Your task to perform on an android device: Go to eBay Image 0: 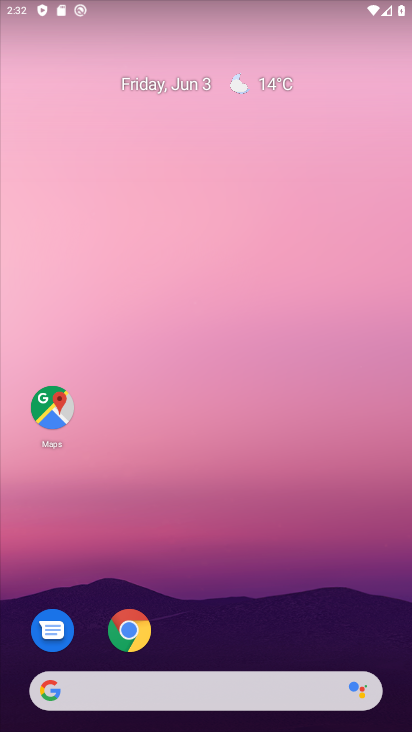
Step 0: drag from (225, 631) to (214, 208)
Your task to perform on an android device: Go to eBay Image 1: 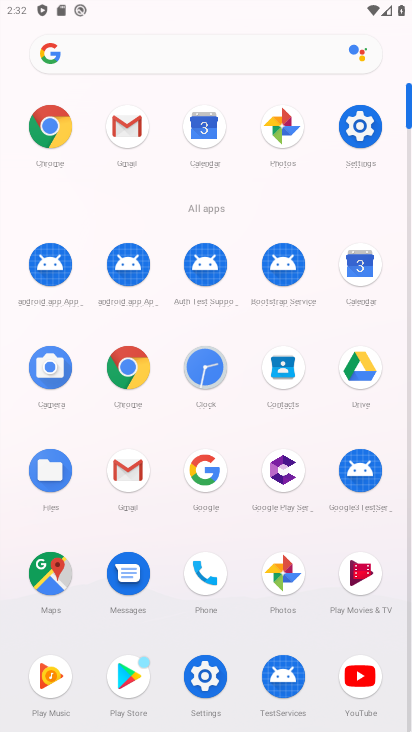
Step 1: click (46, 136)
Your task to perform on an android device: Go to eBay Image 2: 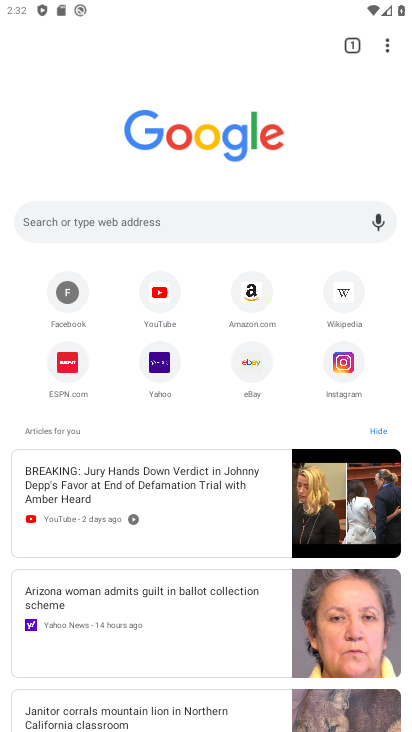
Step 2: click (253, 367)
Your task to perform on an android device: Go to eBay Image 3: 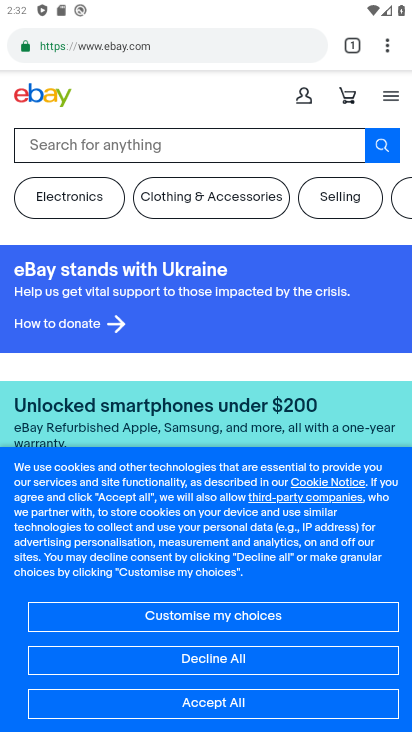
Step 3: task complete